Your task to perform on an android device: open a new tab in the chrome app Image 0: 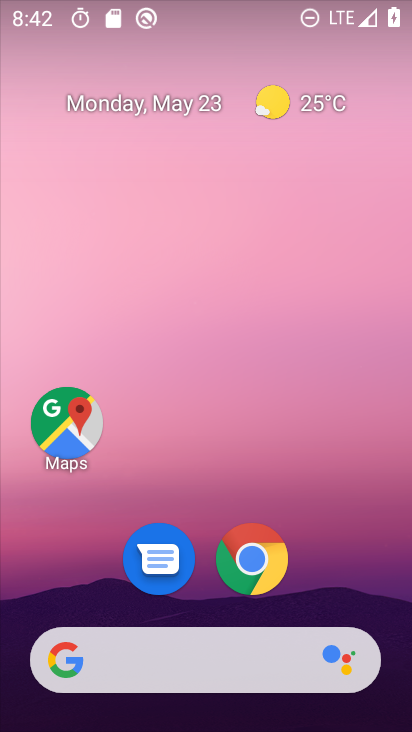
Step 0: drag from (391, 644) to (282, 90)
Your task to perform on an android device: open a new tab in the chrome app Image 1: 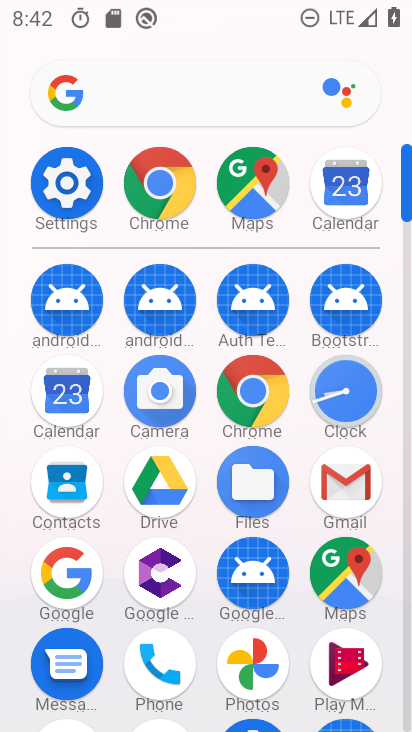
Step 1: click (249, 397)
Your task to perform on an android device: open a new tab in the chrome app Image 2: 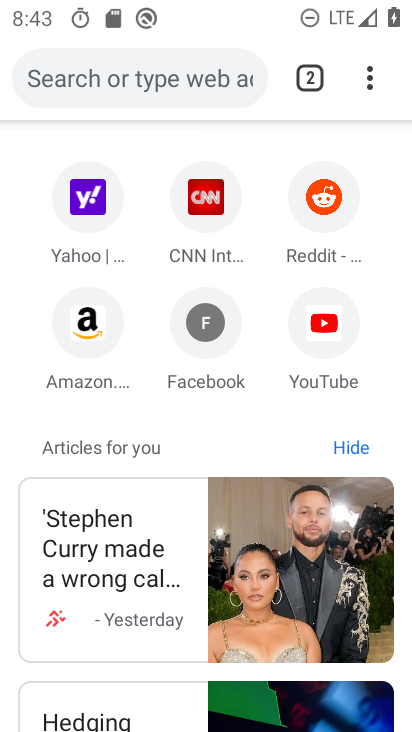
Step 2: click (372, 73)
Your task to perform on an android device: open a new tab in the chrome app Image 3: 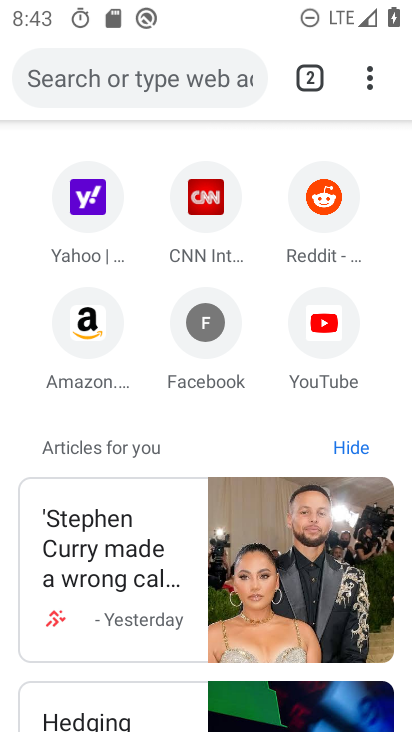
Step 3: click (367, 73)
Your task to perform on an android device: open a new tab in the chrome app Image 4: 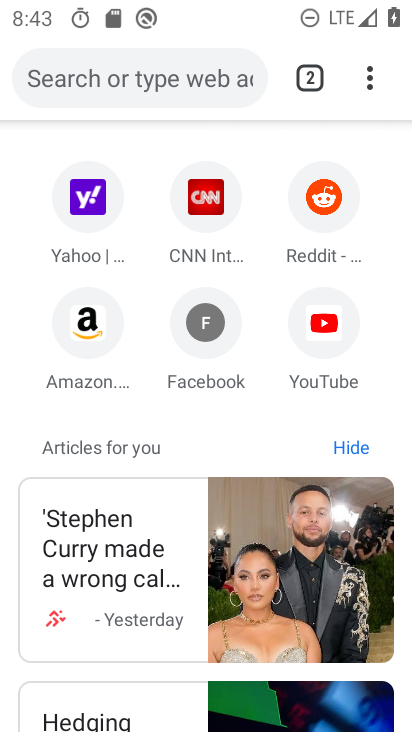
Step 4: click (367, 73)
Your task to perform on an android device: open a new tab in the chrome app Image 5: 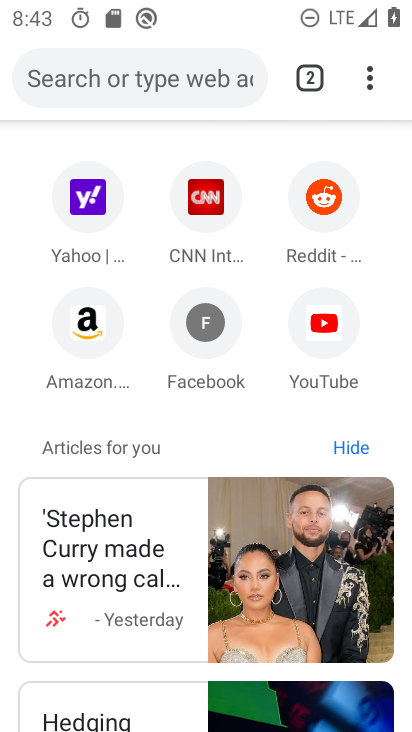
Step 5: click (375, 68)
Your task to perform on an android device: open a new tab in the chrome app Image 6: 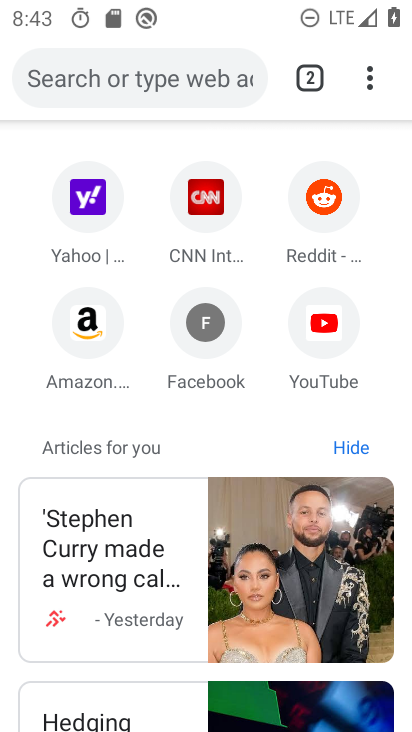
Step 6: click (375, 68)
Your task to perform on an android device: open a new tab in the chrome app Image 7: 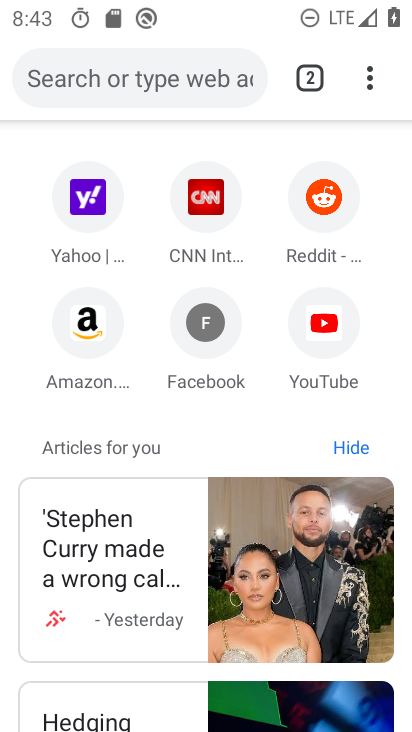
Step 7: click (364, 73)
Your task to perform on an android device: open a new tab in the chrome app Image 8: 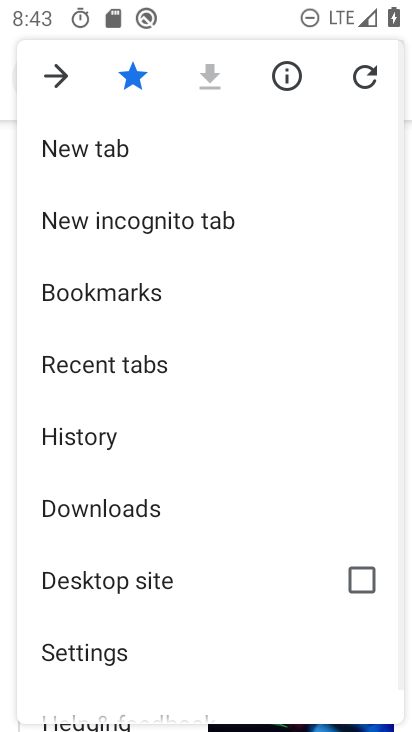
Step 8: click (157, 143)
Your task to perform on an android device: open a new tab in the chrome app Image 9: 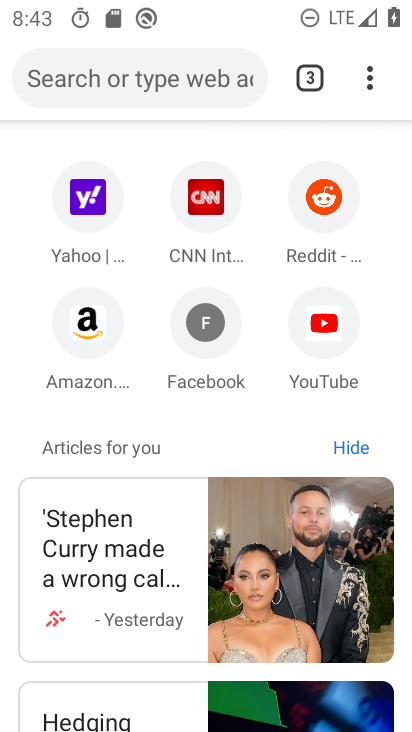
Step 9: task complete